Your task to perform on an android device: Nike Air Max 2020 shoes on Nike.com Image 0: 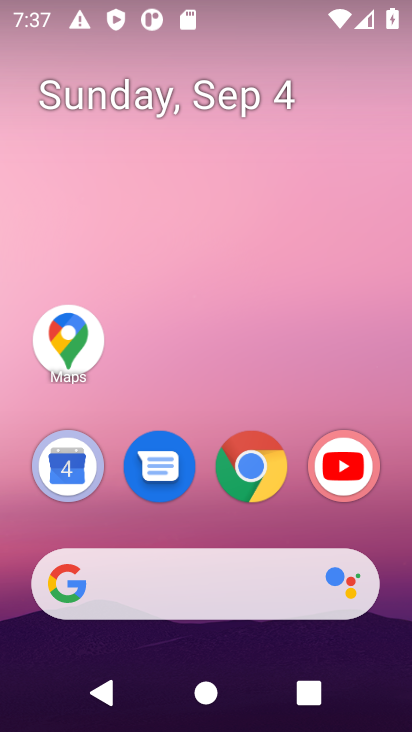
Step 0: drag from (195, 539) to (249, 2)
Your task to perform on an android device: Nike Air Max 2020 shoes on Nike.com Image 1: 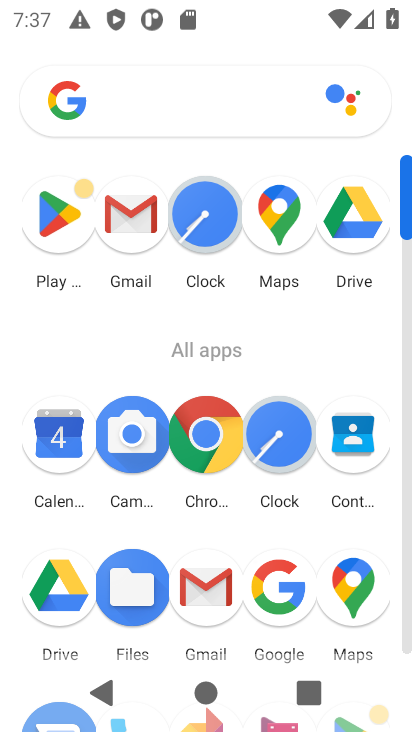
Step 1: click (206, 434)
Your task to perform on an android device: Nike Air Max 2020 shoes on Nike.com Image 2: 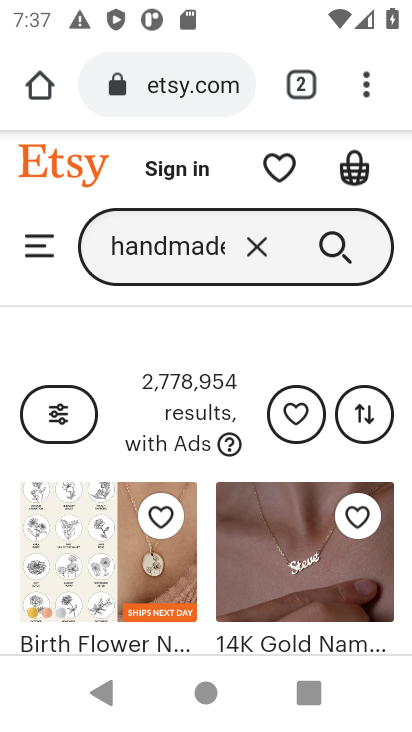
Step 2: drag from (363, 89) to (97, 169)
Your task to perform on an android device: Nike Air Max 2020 shoes on Nike.com Image 3: 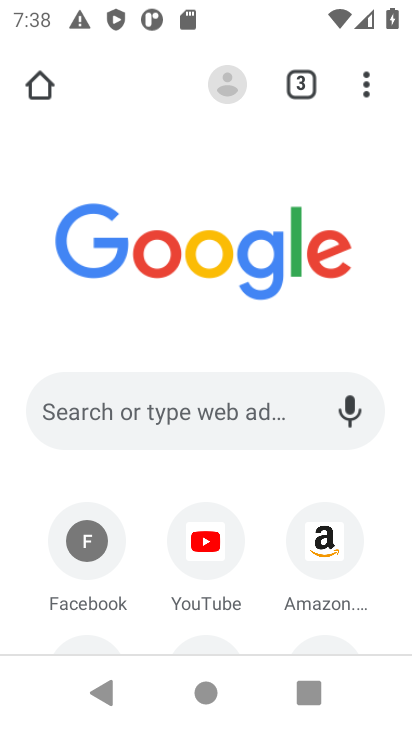
Step 3: click (236, 401)
Your task to perform on an android device: Nike Air Max 2020 shoes on Nike.com Image 4: 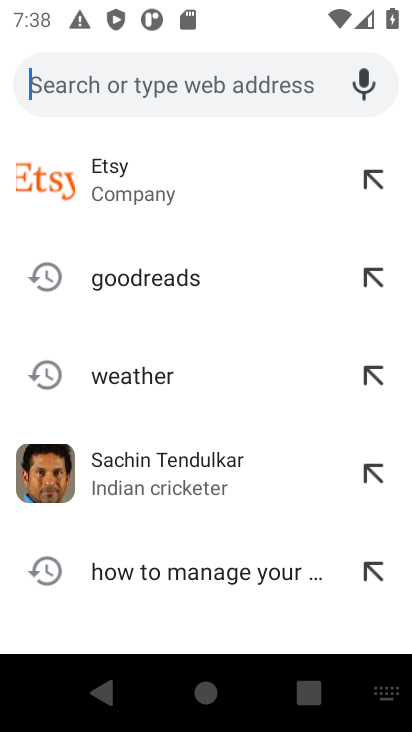
Step 4: type "Nike.com"
Your task to perform on an android device: Nike Air Max 2020 shoes on Nike.com Image 5: 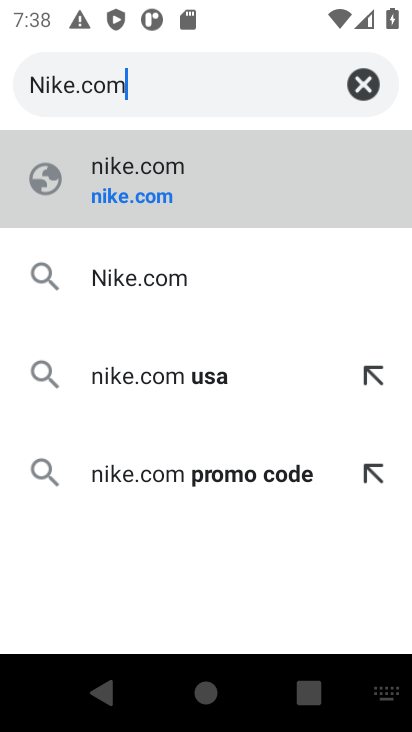
Step 5: type ""
Your task to perform on an android device: Nike Air Max 2020 shoes on Nike.com Image 6: 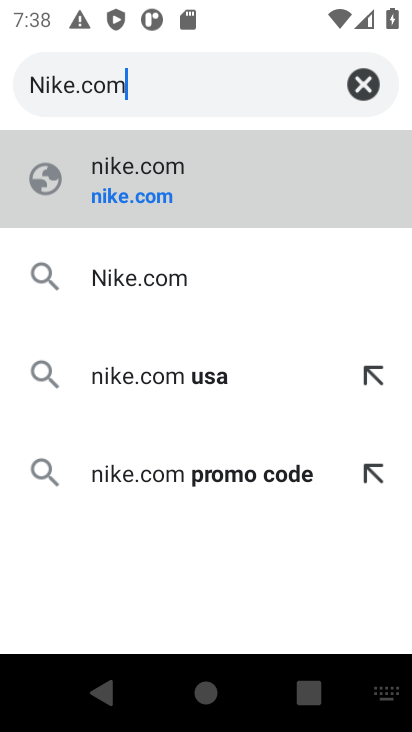
Step 6: click (116, 168)
Your task to perform on an android device: Nike Air Max 2020 shoes on Nike.com Image 7: 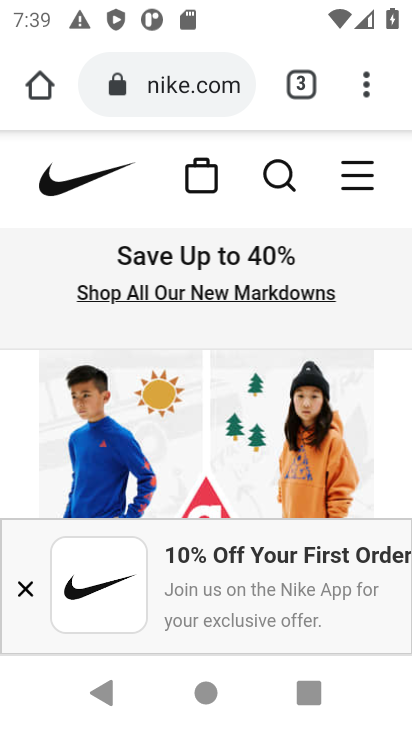
Step 7: click (277, 177)
Your task to perform on an android device: Nike Air Max 2020 shoes on Nike.com Image 8: 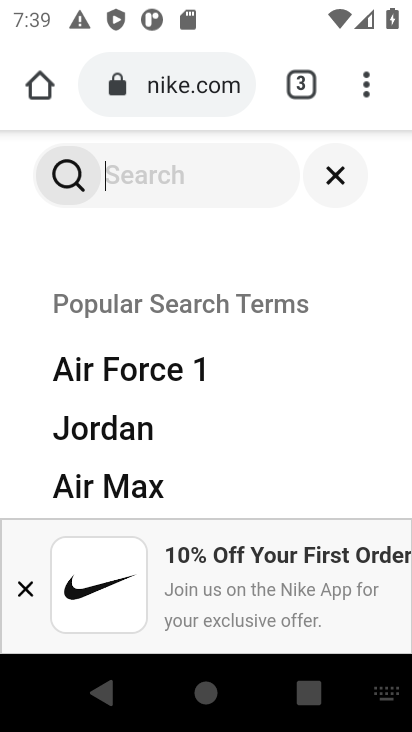
Step 8: type "Nike Air Max 2020 shoes "
Your task to perform on an android device: Nike Air Max 2020 shoes on Nike.com Image 9: 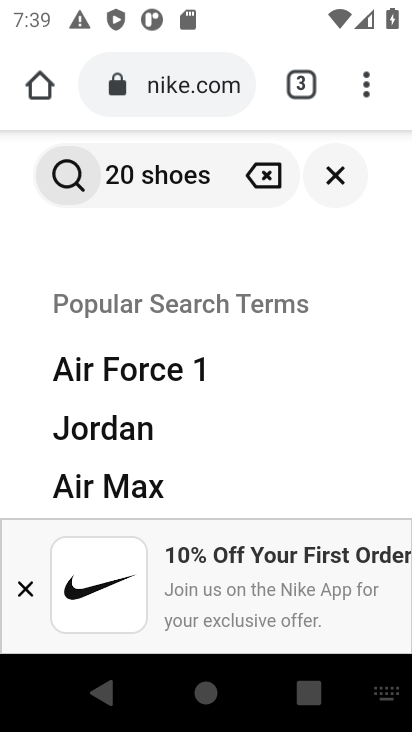
Step 9: click (66, 175)
Your task to perform on an android device: Nike Air Max 2020 shoes on Nike.com Image 10: 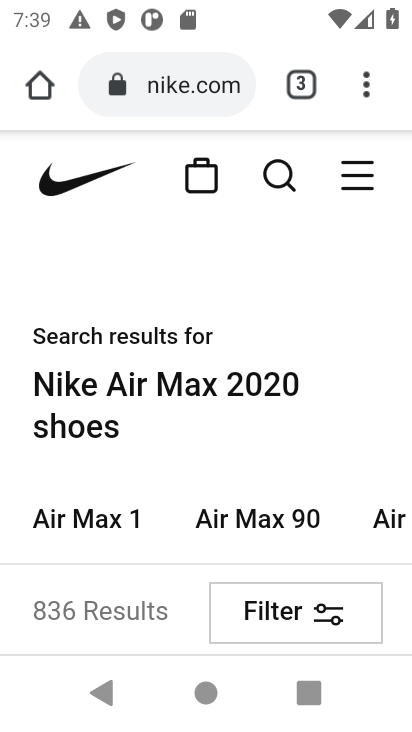
Step 10: task complete